Your task to perform on an android device: empty trash in google photos Image 0: 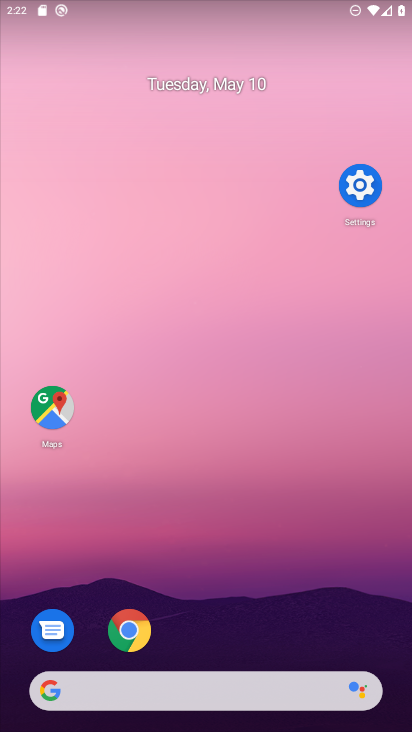
Step 0: drag from (340, 645) to (249, 165)
Your task to perform on an android device: empty trash in google photos Image 1: 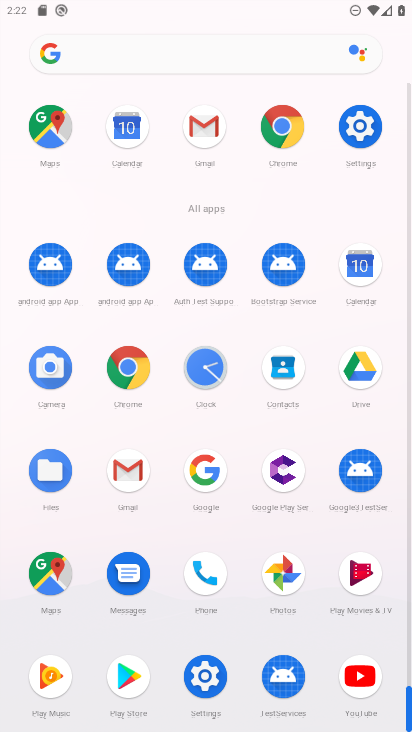
Step 1: click (286, 570)
Your task to perform on an android device: empty trash in google photos Image 2: 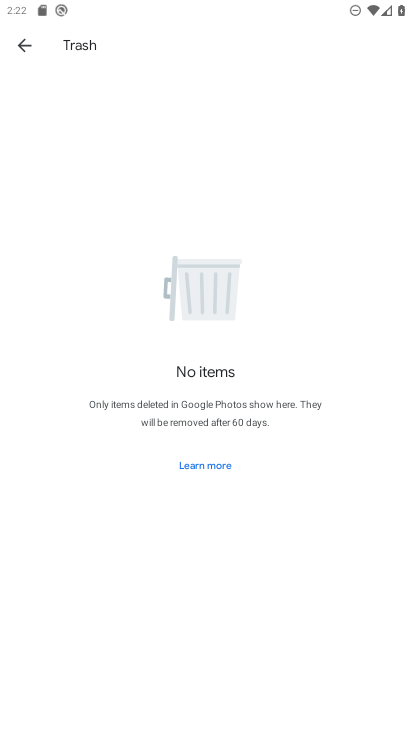
Step 2: task complete